Your task to perform on an android device: Go to eBay Image 0: 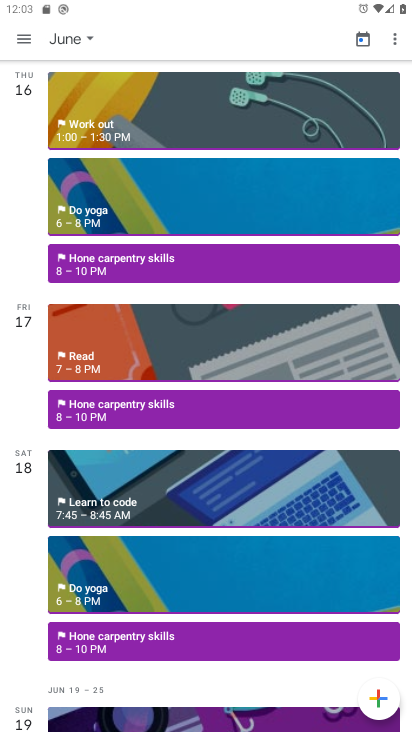
Step 0: press home button
Your task to perform on an android device: Go to eBay Image 1: 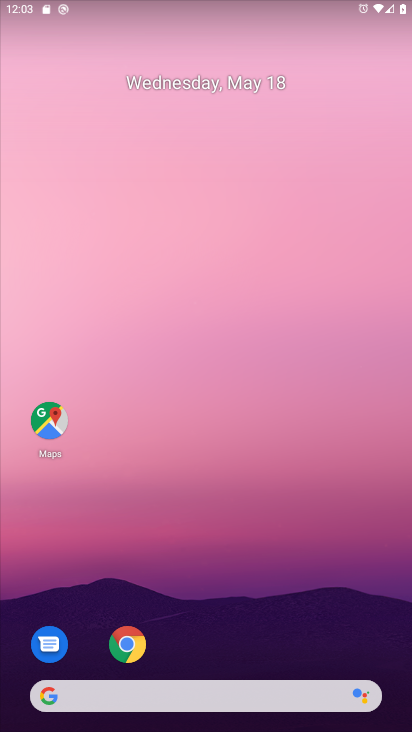
Step 1: drag from (211, 659) to (161, 45)
Your task to perform on an android device: Go to eBay Image 2: 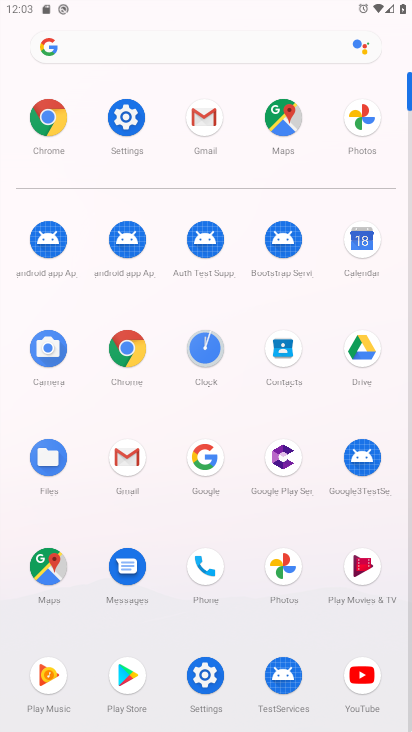
Step 2: click (128, 346)
Your task to perform on an android device: Go to eBay Image 3: 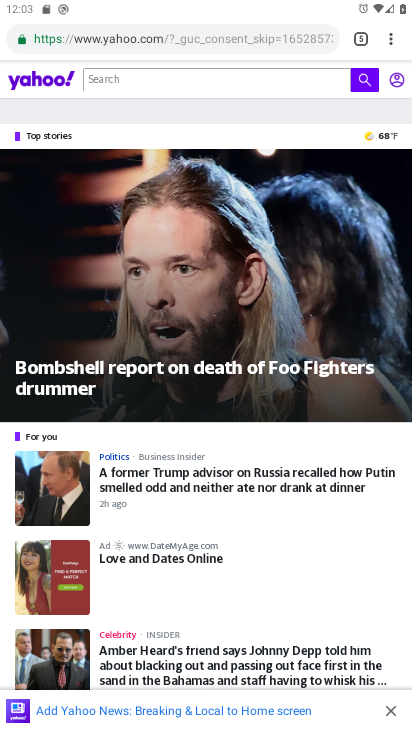
Step 3: click (358, 40)
Your task to perform on an android device: Go to eBay Image 4: 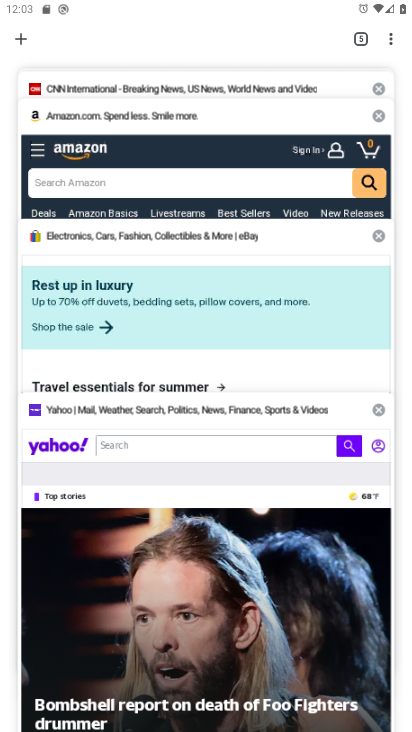
Step 4: click (15, 44)
Your task to perform on an android device: Go to eBay Image 5: 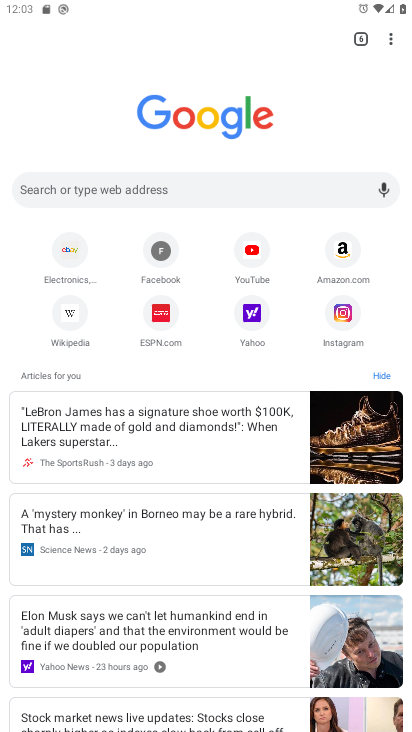
Step 5: click (61, 247)
Your task to perform on an android device: Go to eBay Image 6: 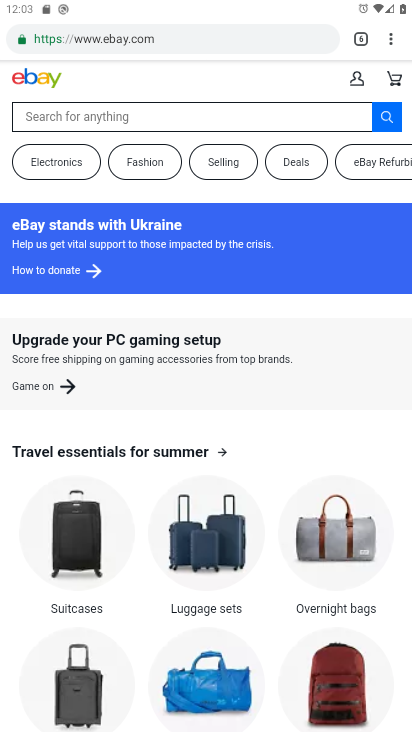
Step 6: task complete